Your task to perform on an android device: Go to accessibility settings Image 0: 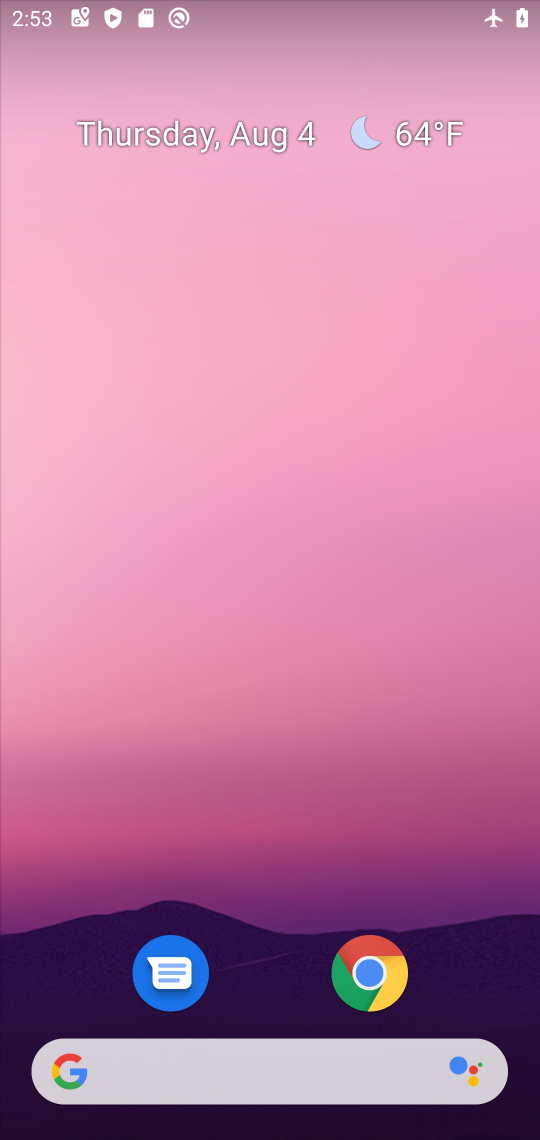
Step 0: drag from (244, 1006) to (382, 23)
Your task to perform on an android device: Go to accessibility settings Image 1: 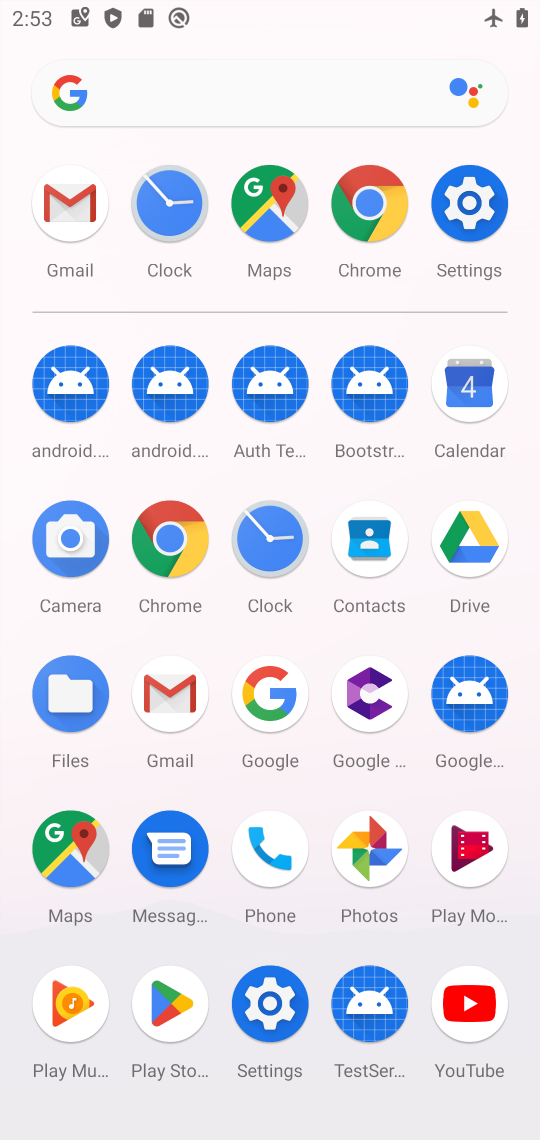
Step 1: click (278, 999)
Your task to perform on an android device: Go to accessibility settings Image 2: 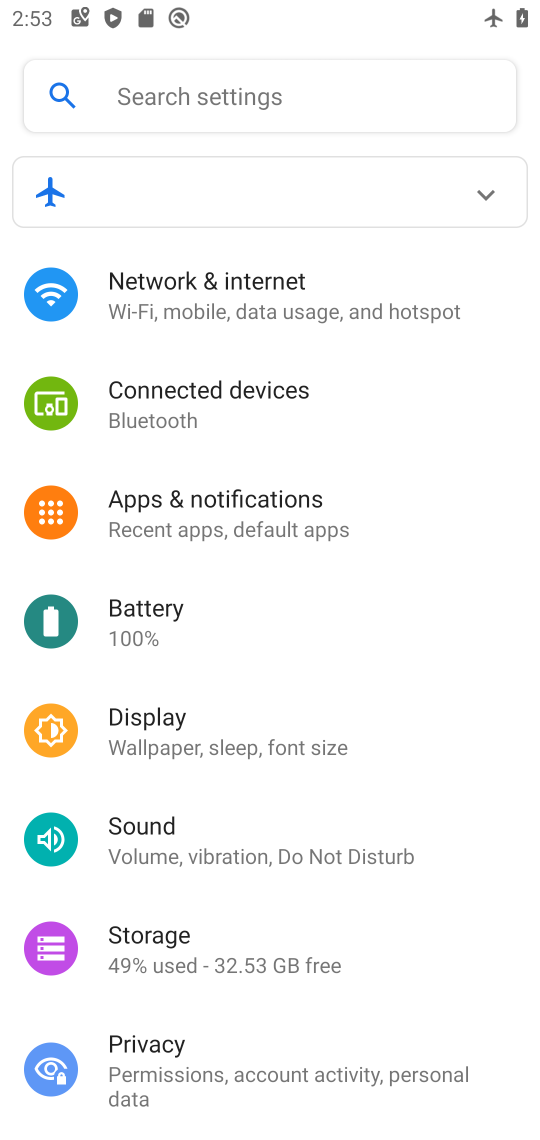
Step 2: drag from (255, 962) to (223, 190)
Your task to perform on an android device: Go to accessibility settings Image 3: 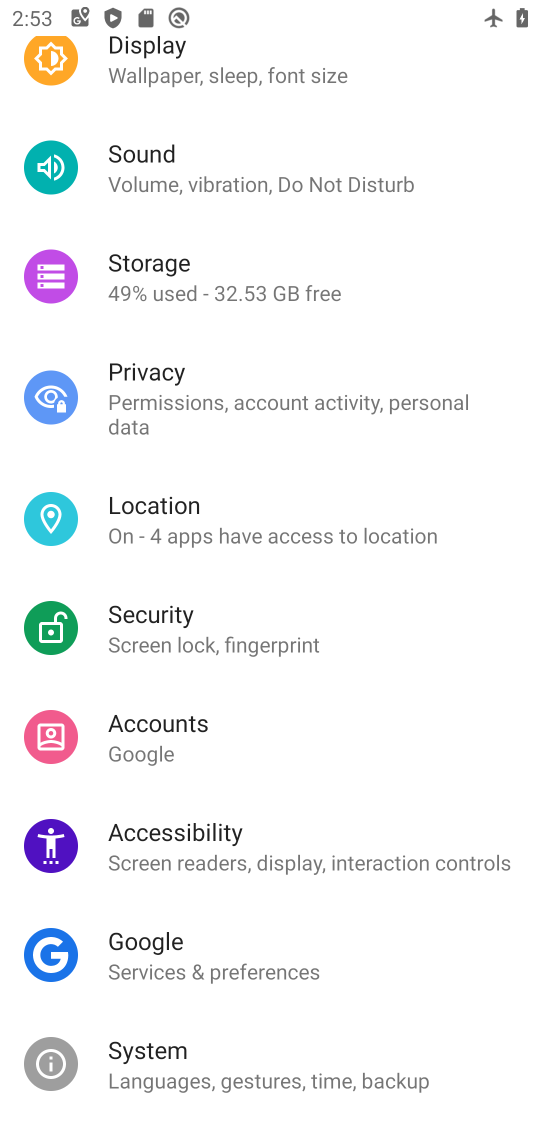
Step 3: click (180, 866)
Your task to perform on an android device: Go to accessibility settings Image 4: 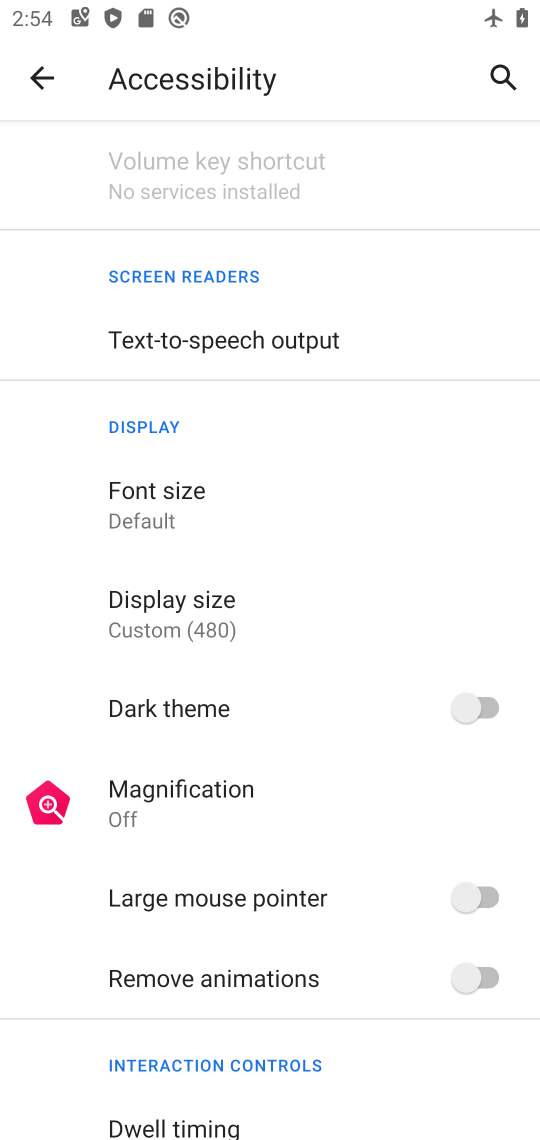
Step 4: task complete